Your task to perform on an android device: Search for Italian restaurants on Maps Image 0: 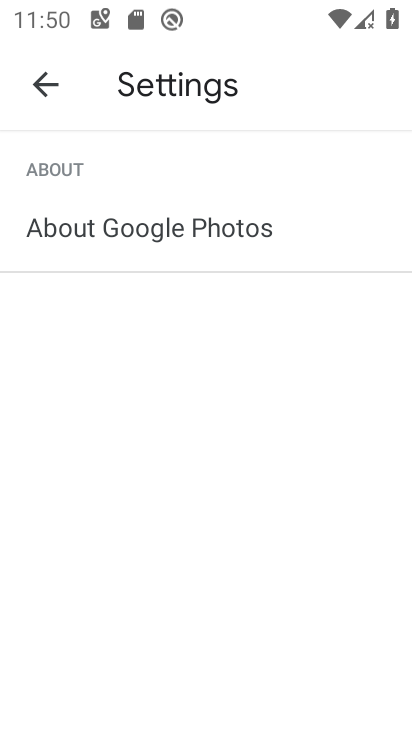
Step 0: press home button
Your task to perform on an android device: Search for Italian restaurants on Maps Image 1: 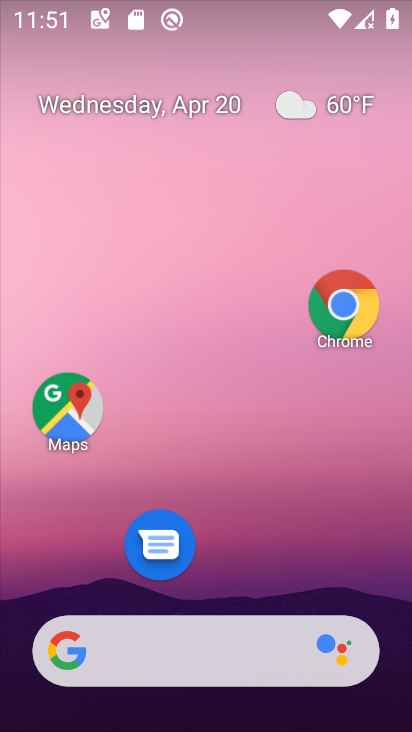
Step 1: click (87, 403)
Your task to perform on an android device: Search for Italian restaurants on Maps Image 2: 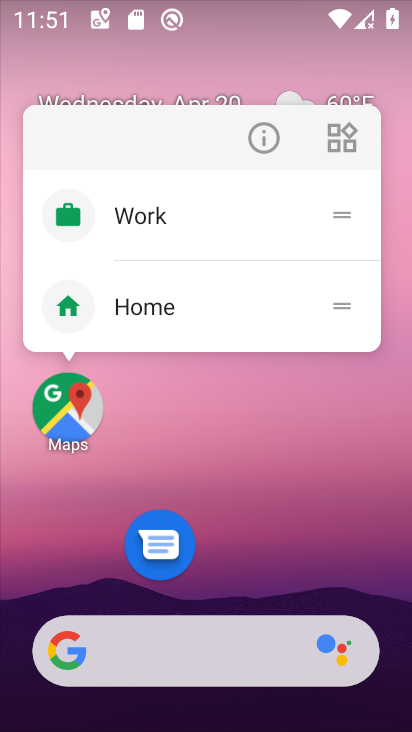
Step 2: click (87, 403)
Your task to perform on an android device: Search for Italian restaurants on Maps Image 3: 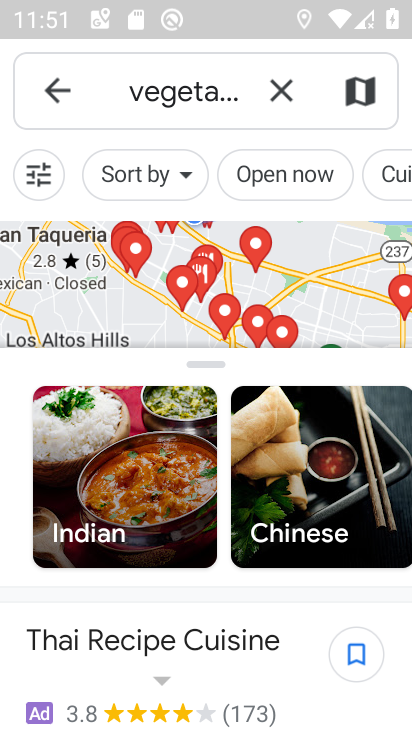
Step 3: click (285, 89)
Your task to perform on an android device: Search for Italian restaurants on Maps Image 4: 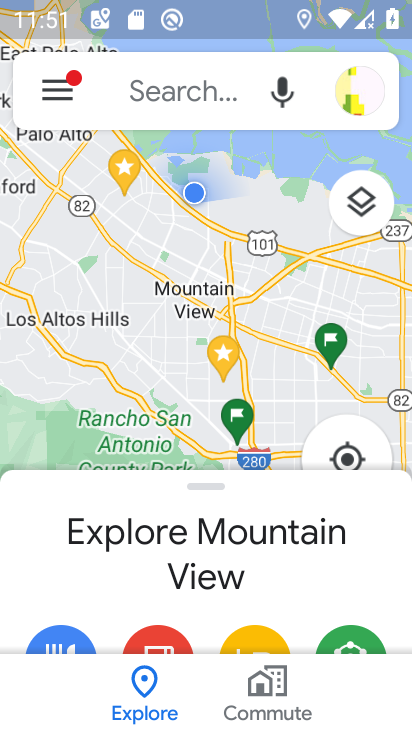
Step 4: click (202, 108)
Your task to perform on an android device: Search for Italian restaurants on Maps Image 5: 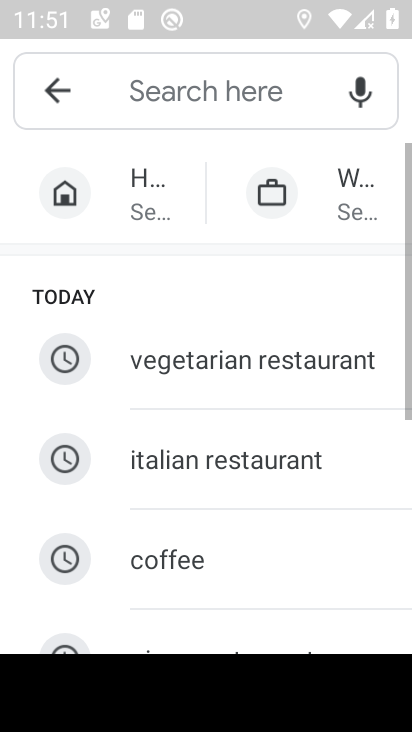
Step 5: click (236, 465)
Your task to perform on an android device: Search for Italian restaurants on Maps Image 6: 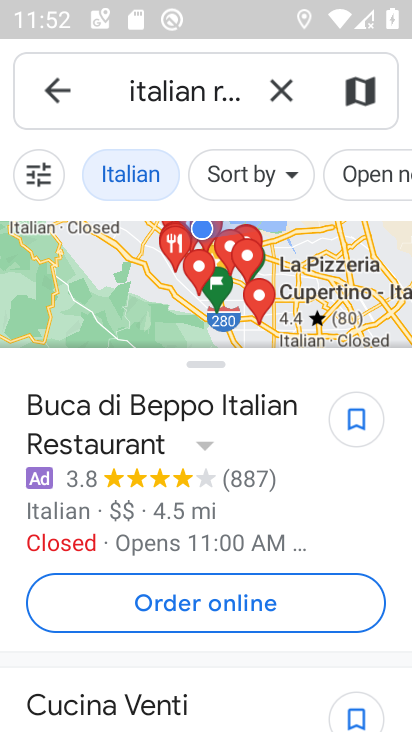
Step 6: task complete